Your task to perform on an android device: change your default location settings in chrome Image 0: 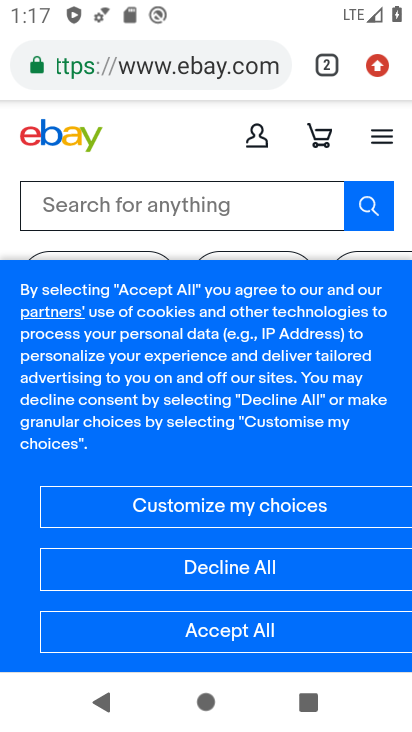
Step 0: press home button
Your task to perform on an android device: change your default location settings in chrome Image 1: 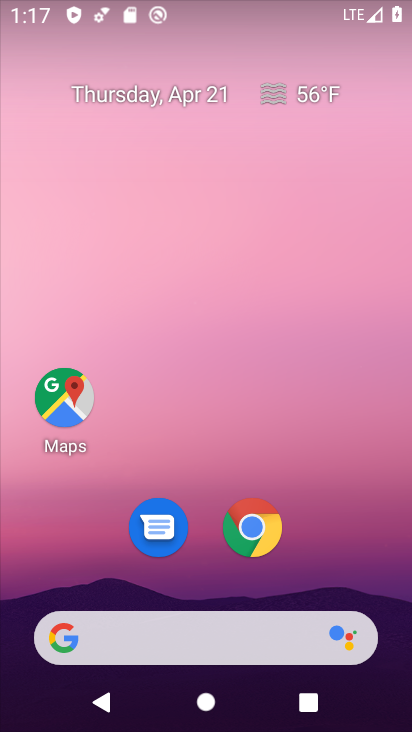
Step 1: click (249, 533)
Your task to perform on an android device: change your default location settings in chrome Image 2: 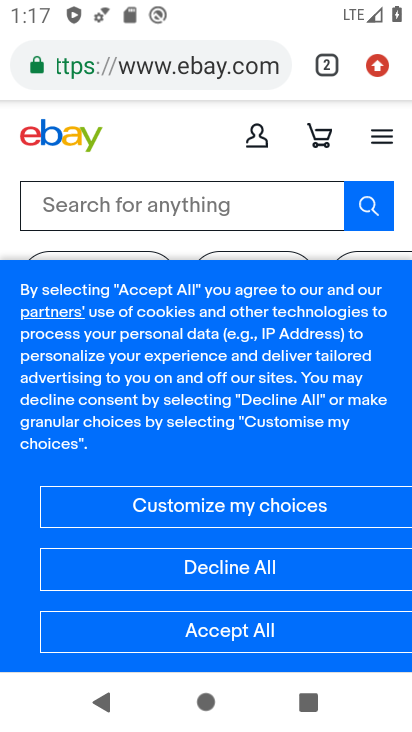
Step 2: click (381, 74)
Your task to perform on an android device: change your default location settings in chrome Image 3: 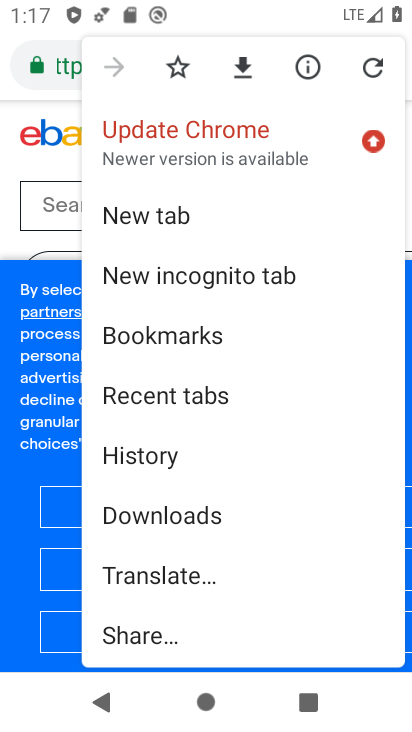
Step 3: drag from (145, 531) to (174, 199)
Your task to perform on an android device: change your default location settings in chrome Image 4: 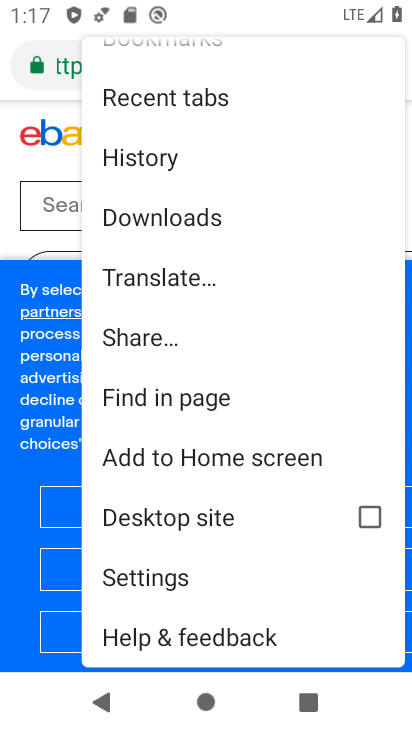
Step 4: click (158, 573)
Your task to perform on an android device: change your default location settings in chrome Image 5: 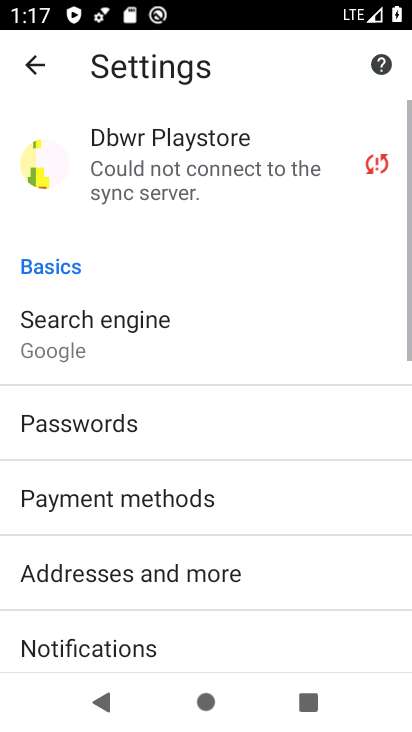
Step 5: drag from (142, 554) to (180, 203)
Your task to perform on an android device: change your default location settings in chrome Image 6: 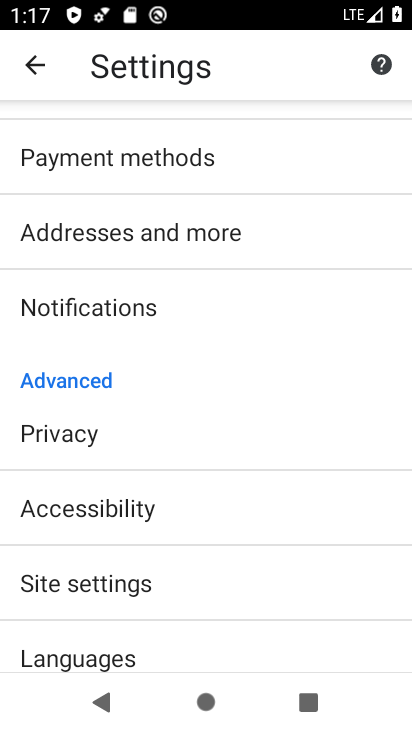
Step 6: drag from (132, 478) to (166, 191)
Your task to perform on an android device: change your default location settings in chrome Image 7: 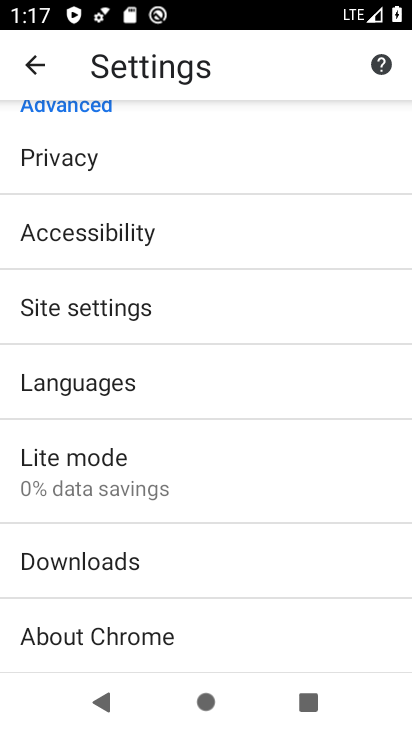
Step 7: drag from (110, 554) to (162, 230)
Your task to perform on an android device: change your default location settings in chrome Image 8: 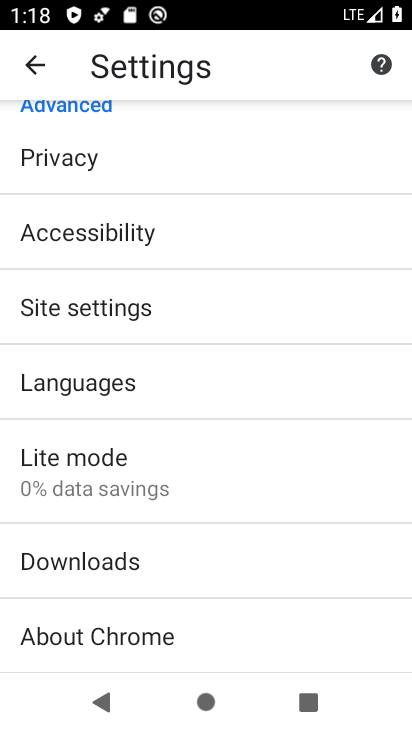
Step 8: click (140, 296)
Your task to perform on an android device: change your default location settings in chrome Image 9: 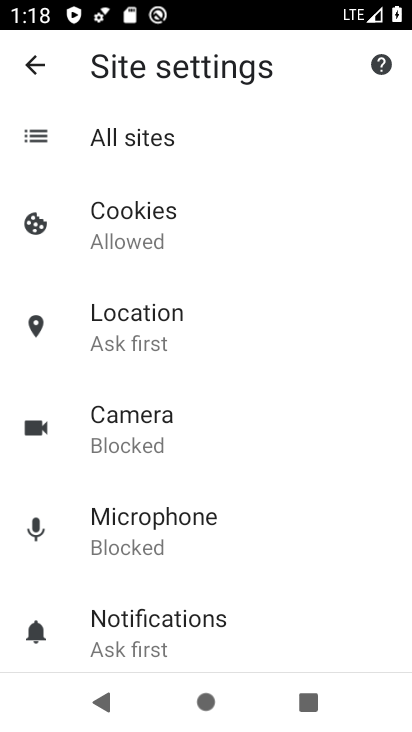
Step 9: click (172, 343)
Your task to perform on an android device: change your default location settings in chrome Image 10: 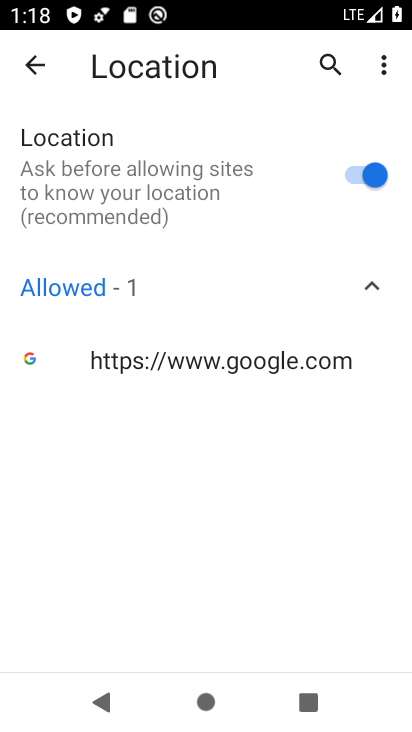
Step 10: task complete